Your task to perform on an android device: change alarm snooze length Image 0: 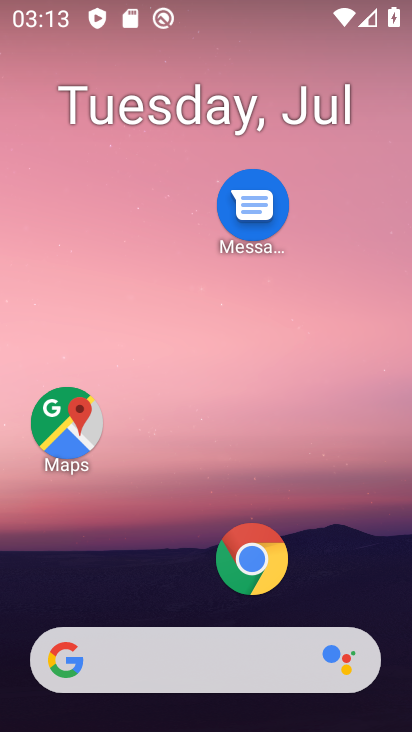
Step 0: drag from (162, 631) to (231, 52)
Your task to perform on an android device: change alarm snooze length Image 1: 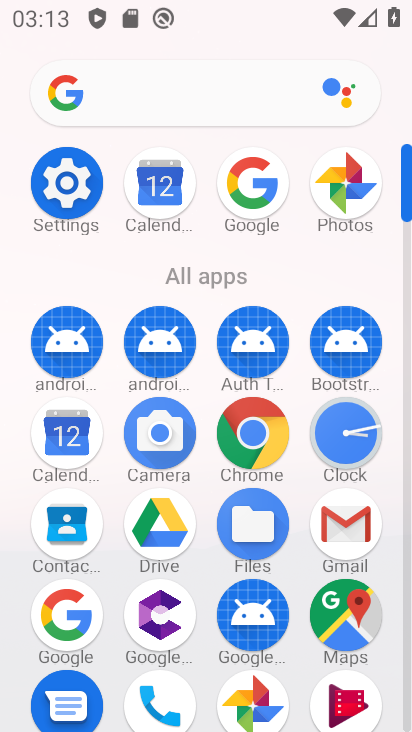
Step 1: click (341, 445)
Your task to perform on an android device: change alarm snooze length Image 2: 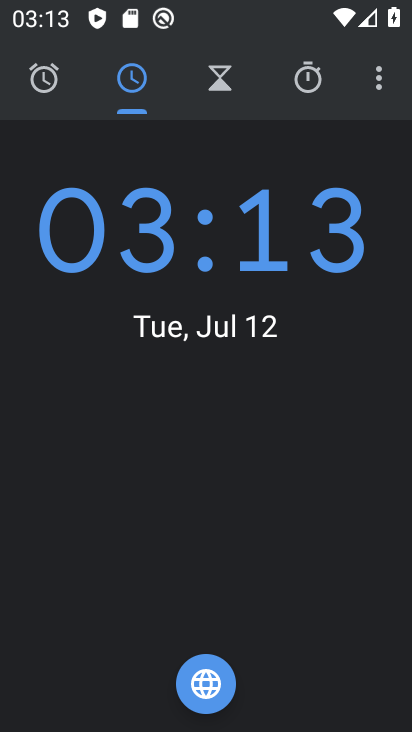
Step 2: click (380, 70)
Your task to perform on an android device: change alarm snooze length Image 3: 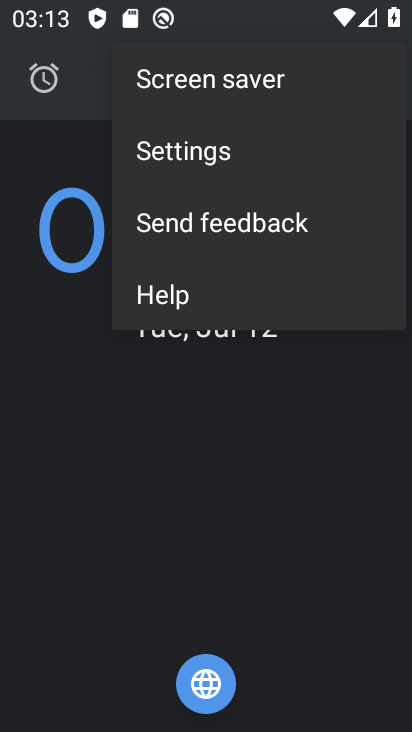
Step 3: click (201, 148)
Your task to perform on an android device: change alarm snooze length Image 4: 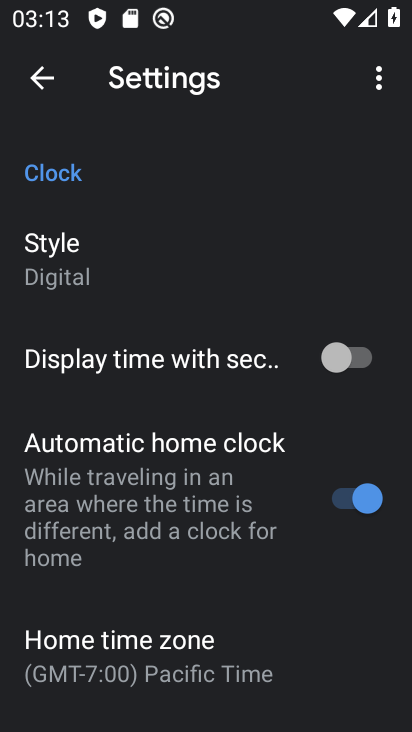
Step 4: drag from (166, 685) to (252, 115)
Your task to perform on an android device: change alarm snooze length Image 5: 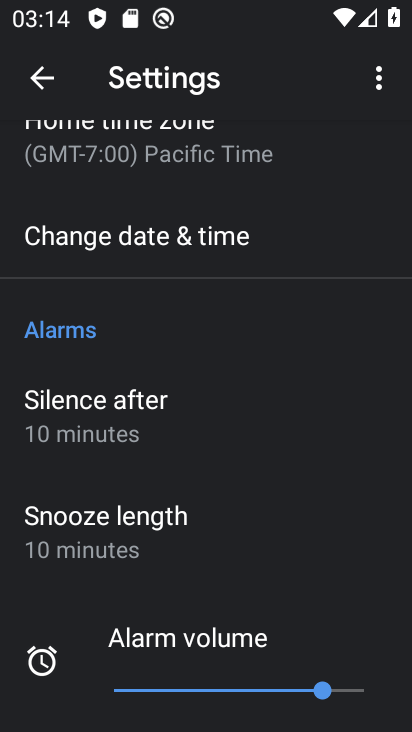
Step 5: click (147, 538)
Your task to perform on an android device: change alarm snooze length Image 6: 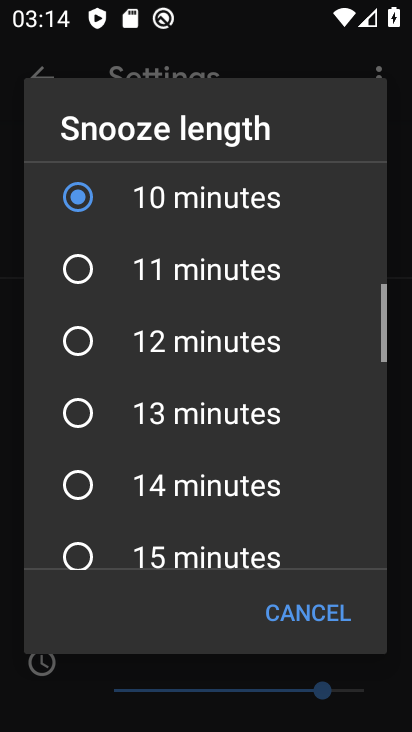
Step 6: click (163, 273)
Your task to perform on an android device: change alarm snooze length Image 7: 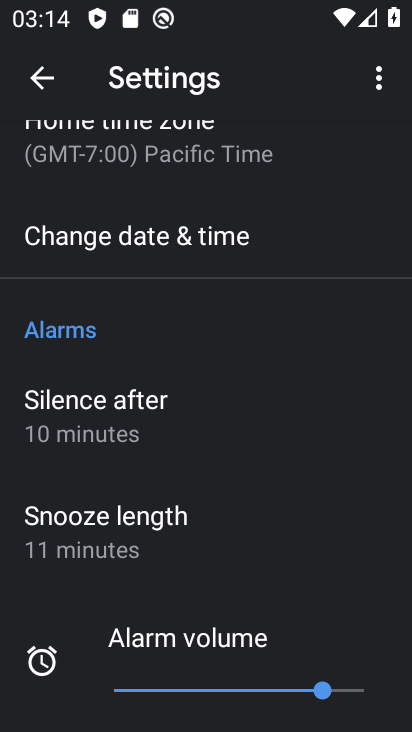
Step 7: click (98, 547)
Your task to perform on an android device: change alarm snooze length Image 8: 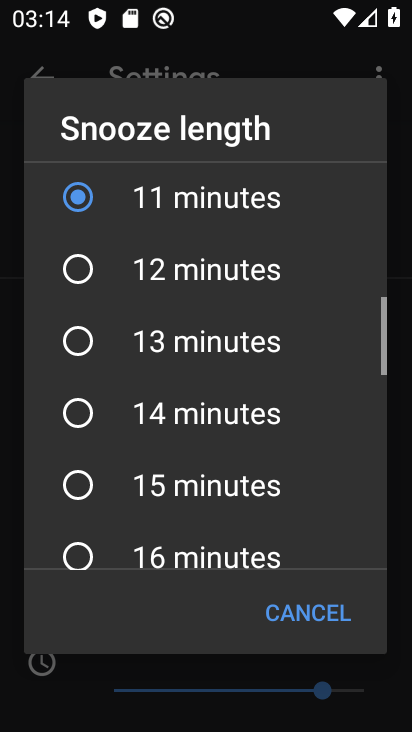
Step 8: click (168, 344)
Your task to perform on an android device: change alarm snooze length Image 9: 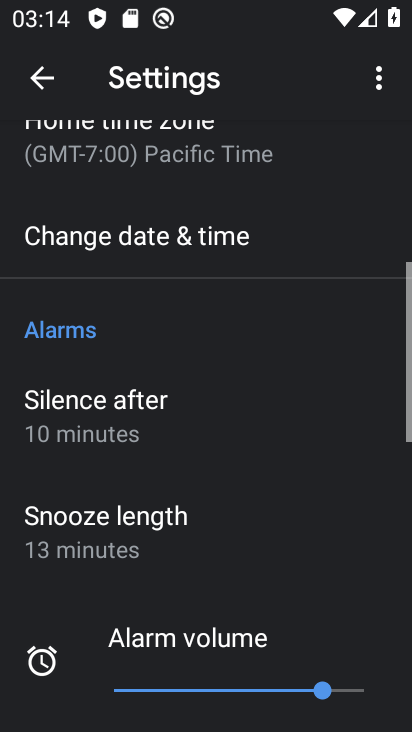
Step 9: task complete